Your task to perform on an android device: Go to location settings Image 0: 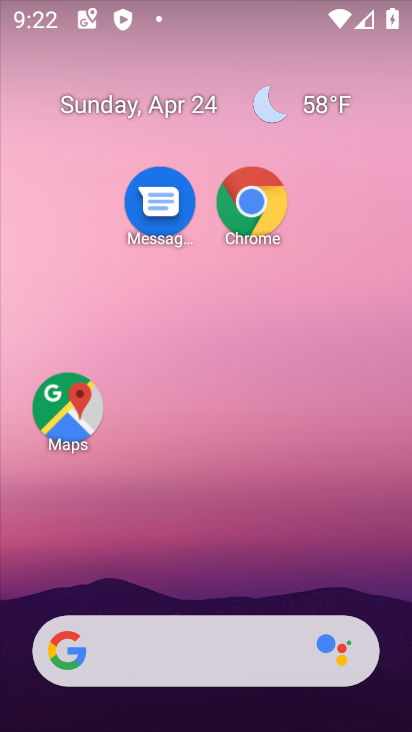
Step 0: drag from (195, 700) to (167, 79)
Your task to perform on an android device: Go to location settings Image 1: 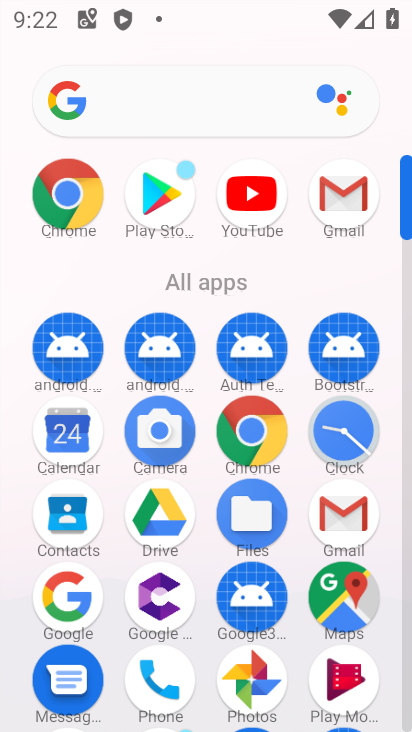
Step 1: drag from (201, 628) to (203, 209)
Your task to perform on an android device: Go to location settings Image 2: 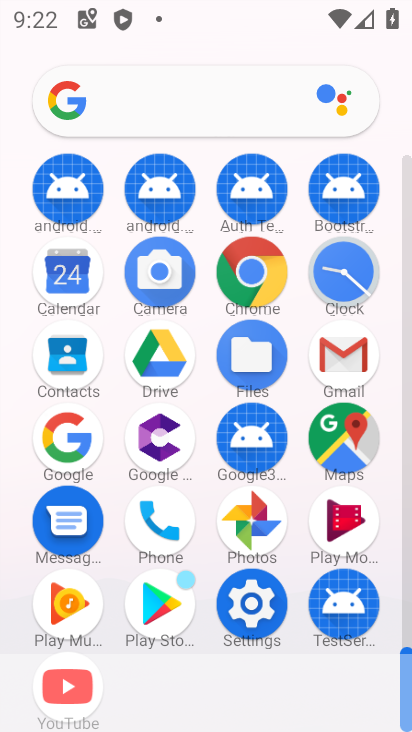
Step 2: click (253, 603)
Your task to perform on an android device: Go to location settings Image 3: 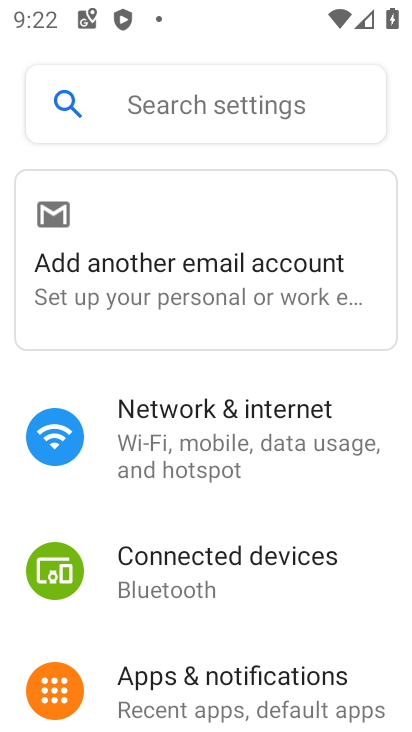
Step 3: drag from (237, 694) to (237, 327)
Your task to perform on an android device: Go to location settings Image 4: 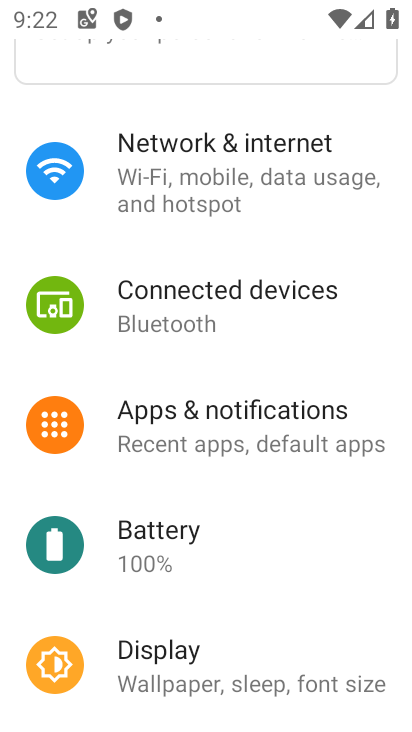
Step 4: drag from (251, 703) to (254, 328)
Your task to perform on an android device: Go to location settings Image 5: 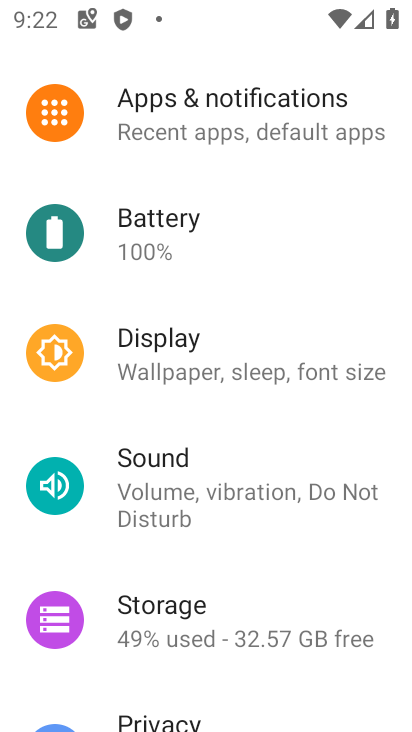
Step 5: drag from (245, 670) to (244, 287)
Your task to perform on an android device: Go to location settings Image 6: 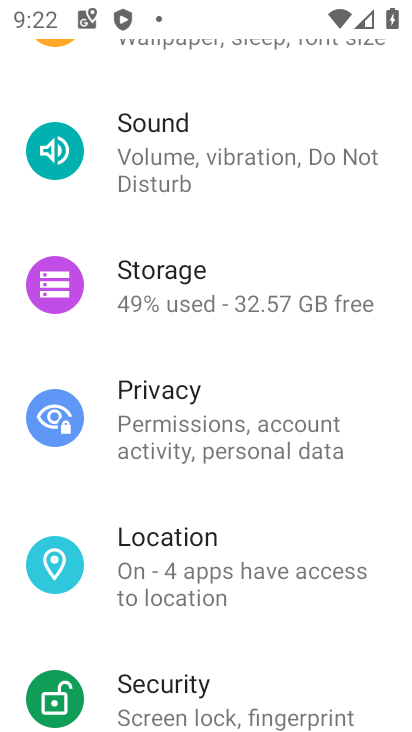
Step 6: click (191, 554)
Your task to perform on an android device: Go to location settings Image 7: 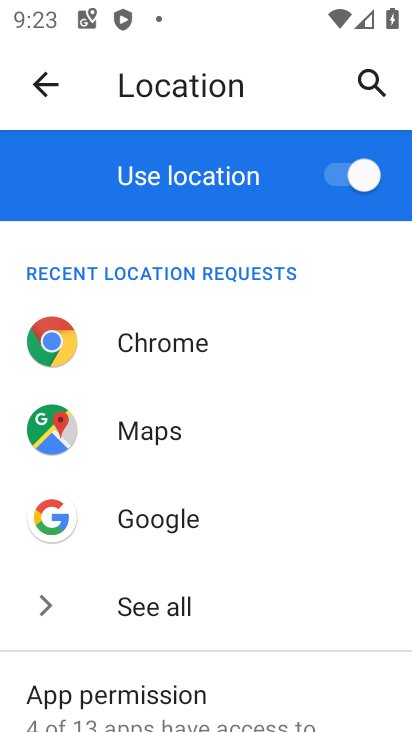
Step 7: task complete